Your task to perform on an android device: turn off notifications in google photos Image 0: 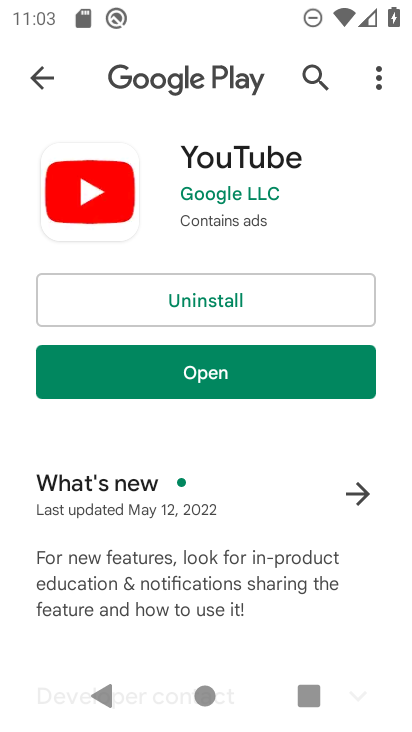
Step 0: drag from (384, 525) to (324, 88)
Your task to perform on an android device: turn off notifications in google photos Image 1: 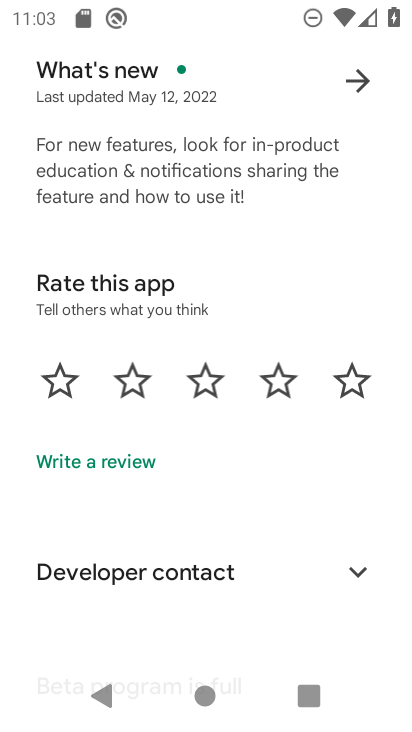
Step 1: press home button
Your task to perform on an android device: turn off notifications in google photos Image 2: 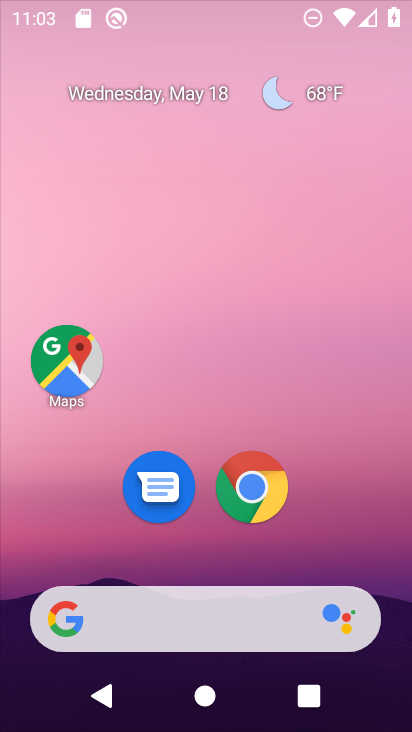
Step 2: drag from (295, 504) to (292, 135)
Your task to perform on an android device: turn off notifications in google photos Image 3: 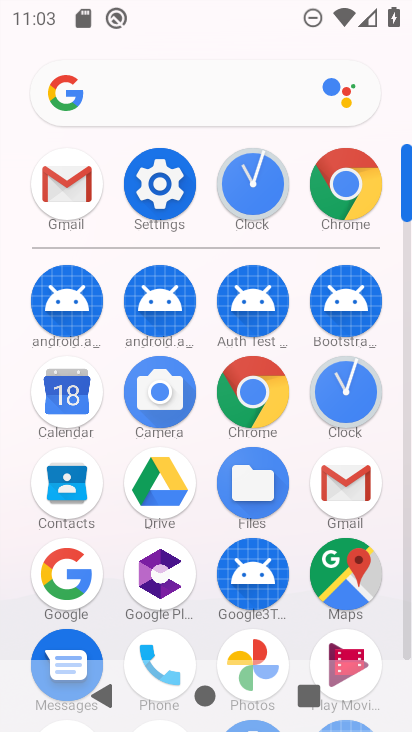
Step 3: click (263, 639)
Your task to perform on an android device: turn off notifications in google photos Image 4: 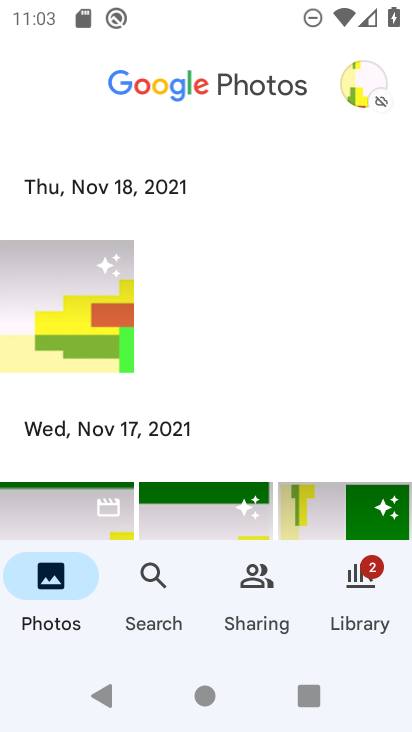
Step 4: click (361, 73)
Your task to perform on an android device: turn off notifications in google photos Image 5: 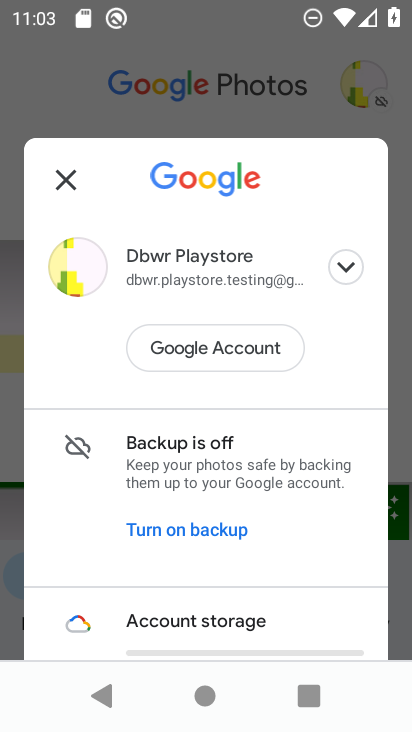
Step 5: drag from (231, 562) to (269, 230)
Your task to perform on an android device: turn off notifications in google photos Image 6: 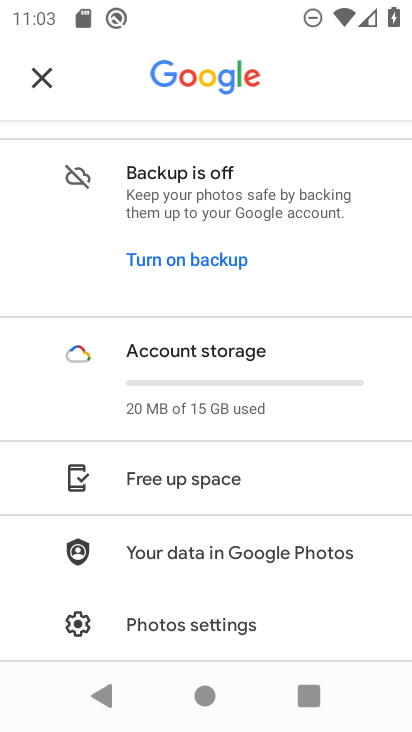
Step 6: drag from (245, 597) to (305, 245)
Your task to perform on an android device: turn off notifications in google photos Image 7: 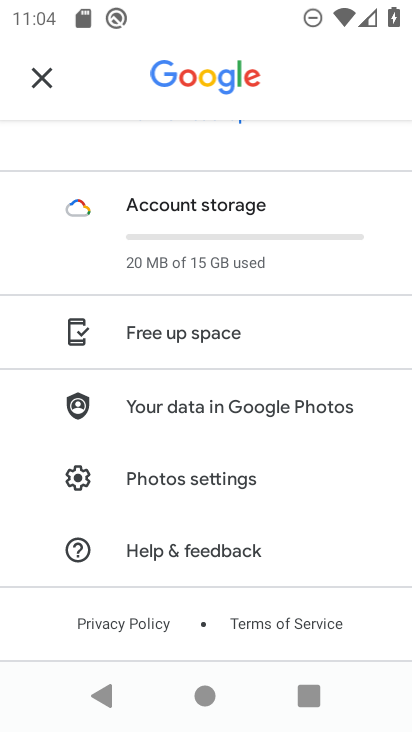
Step 7: click (218, 478)
Your task to perform on an android device: turn off notifications in google photos Image 8: 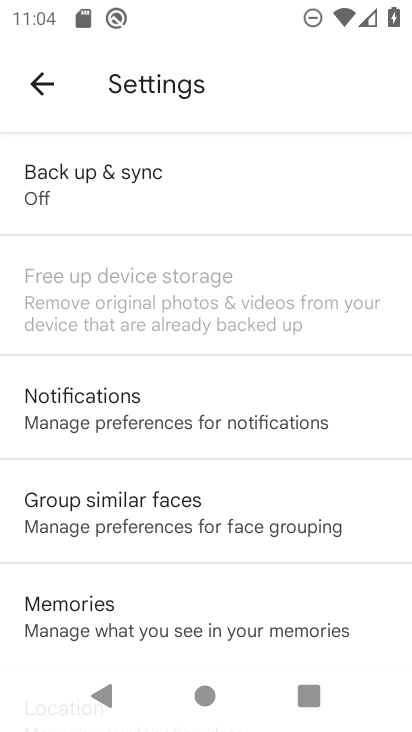
Step 8: click (199, 422)
Your task to perform on an android device: turn off notifications in google photos Image 9: 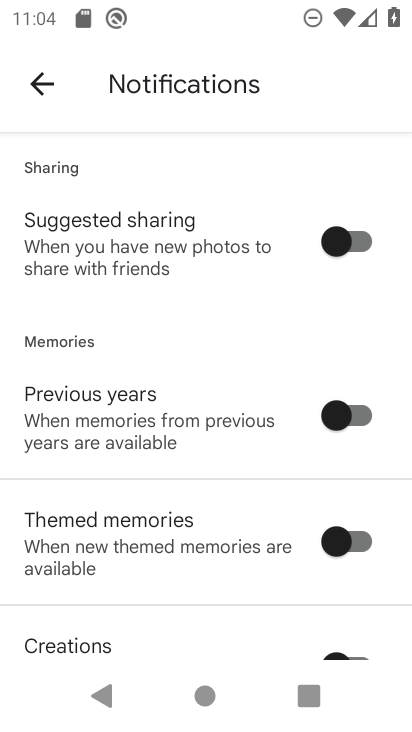
Step 9: drag from (147, 586) to (159, 259)
Your task to perform on an android device: turn off notifications in google photos Image 10: 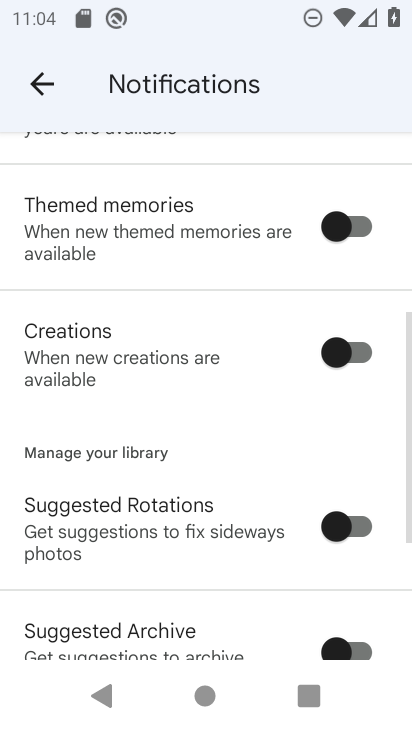
Step 10: drag from (131, 593) to (180, 230)
Your task to perform on an android device: turn off notifications in google photos Image 11: 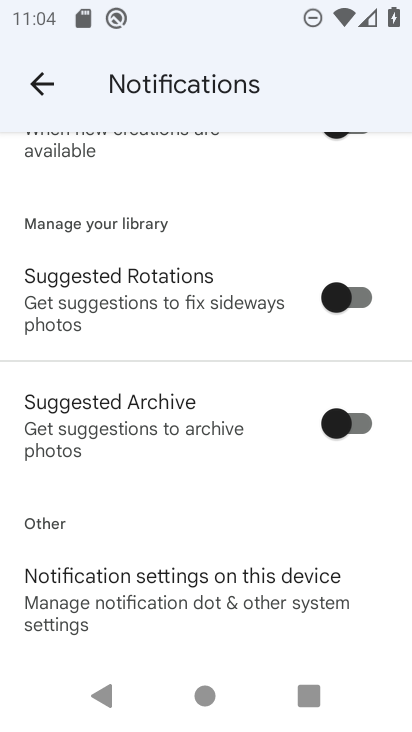
Step 11: click (146, 588)
Your task to perform on an android device: turn off notifications in google photos Image 12: 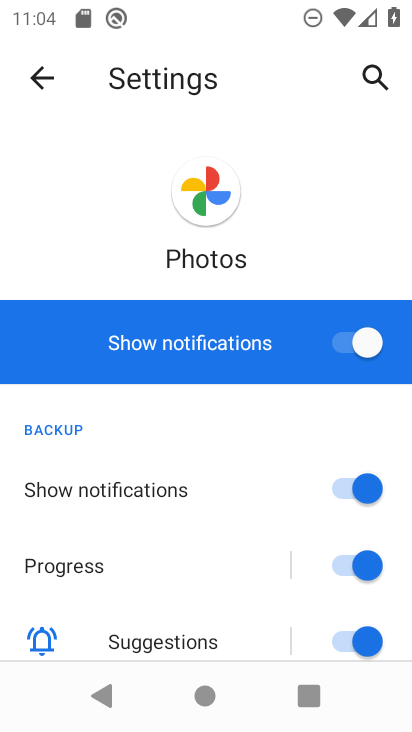
Step 12: click (345, 342)
Your task to perform on an android device: turn off notifications in google photos Image 13: 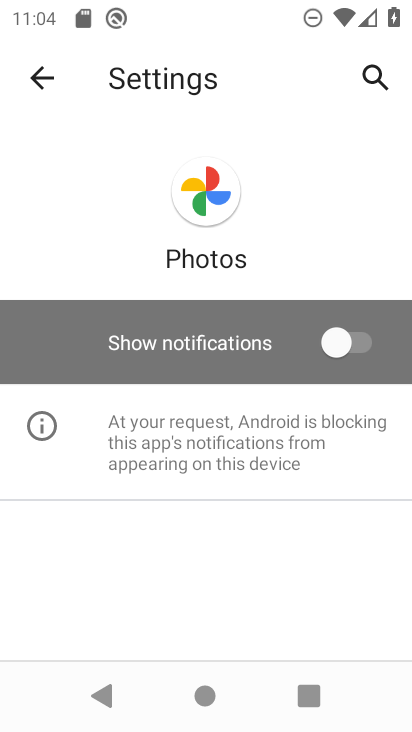
Step 13: task complete